Your task to perform on an android device: toggle improve location accuracy Image 0: 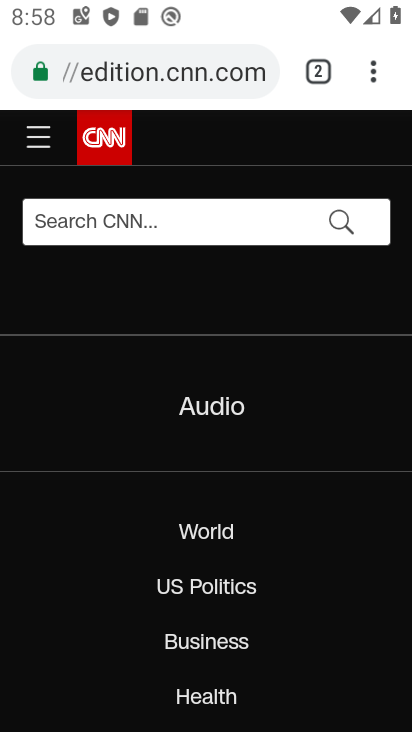
Step 0: press home button
Your task to perform on an android device: toggle improve location accuracy Image 1: 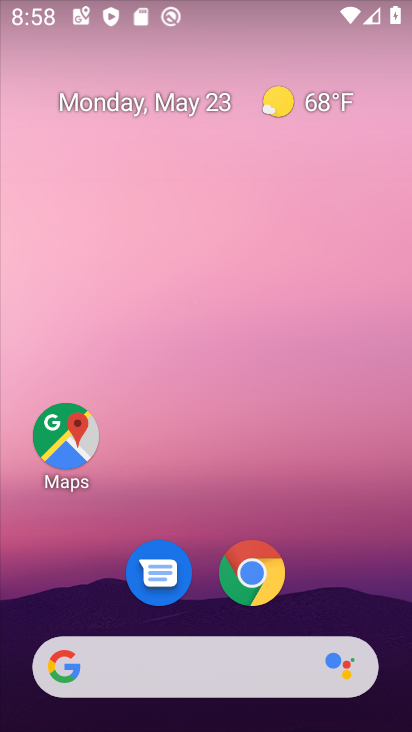
Step 1: drag from (339, 341) to (338, 111)
Your task to perform on an android device: toggle improve location accuracy Image 2: 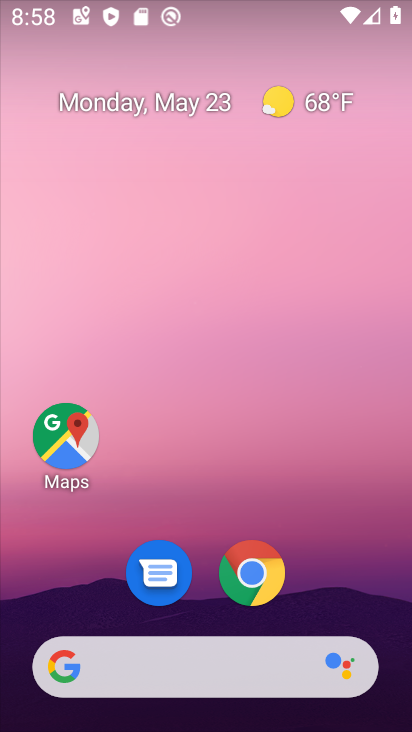
Step 2: drag from (380, 520) to (380, 135)
Your task to perform on an android device: toggle improve location accuracy Image 3: 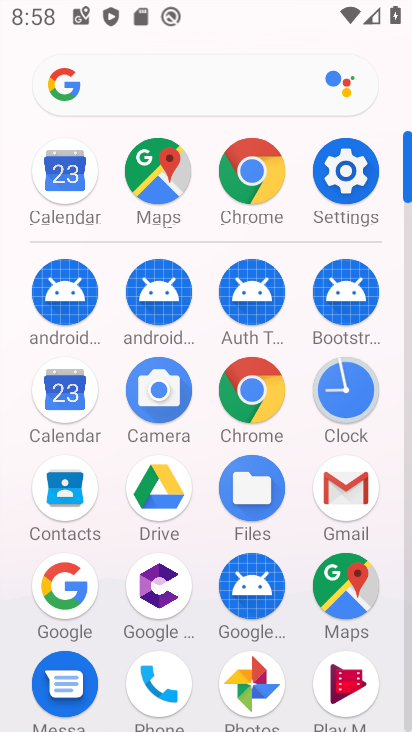
Step 3: click (351, 188)
Your task to perform on an android device: toggle improve location accuracy Image 4: 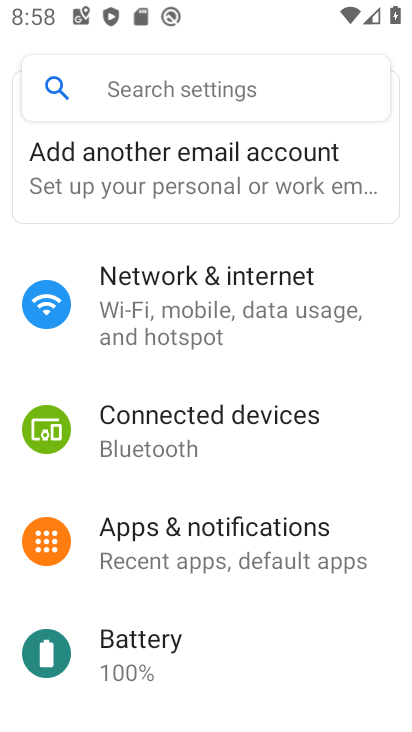
Step 4: drag from (251, 595) to (280, 233)
Your task to perform on an android device: toggle improve location accuracy Image 5: 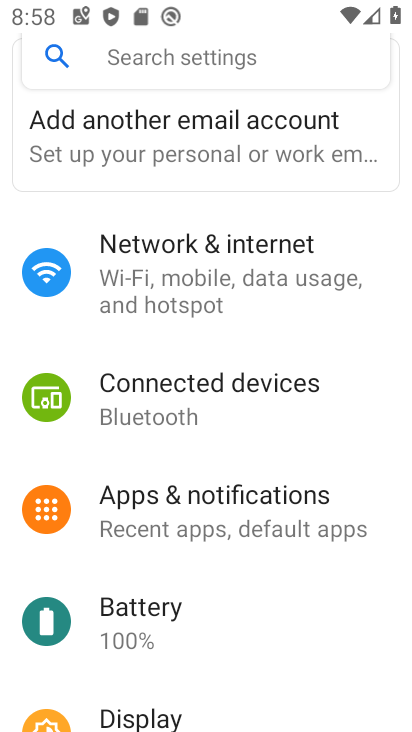
Step 5: drag from (313, 543) to (248, 159)
Your task to perform on an android device: toggle improve location accuracy Image 6: 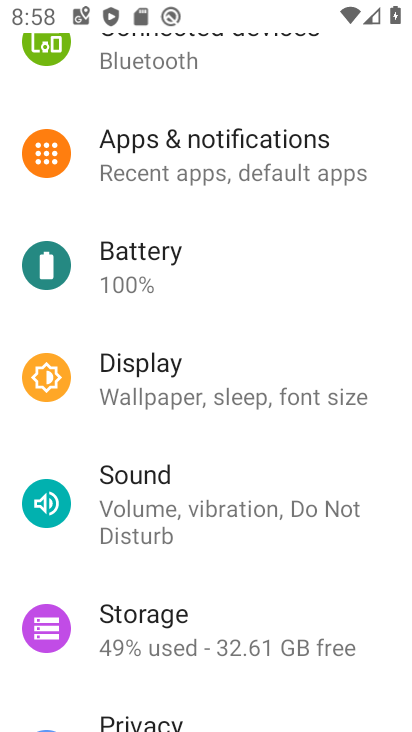
Step 6: drag from (260, 422) to (269, 134)
Your task to perform on an android device: toggle improve location accuracy Image 7: 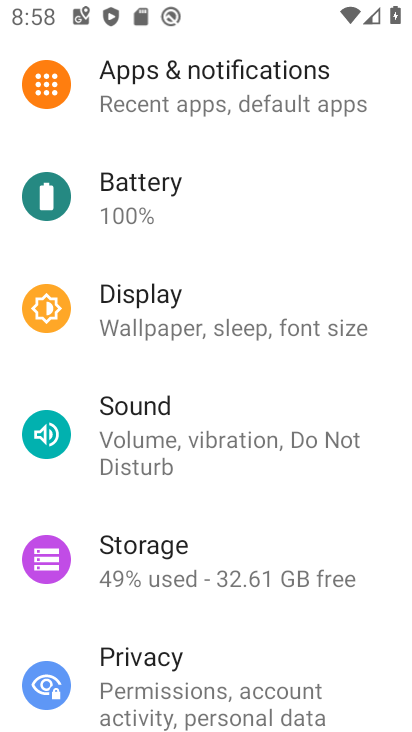
Step 7: drag from (263, 657) to (248, 385)
Your task to perform on an android device: toggle improve location accuracy Image 8: 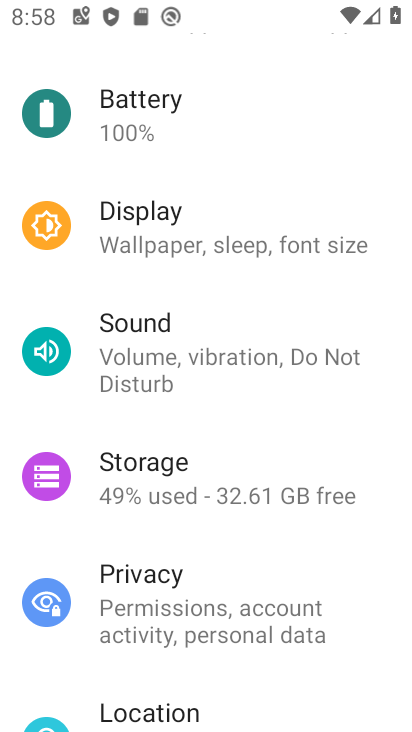
Step 8: click (260, 704)
Your task to perform on an android device: toggle improve location accuracy Image 9: 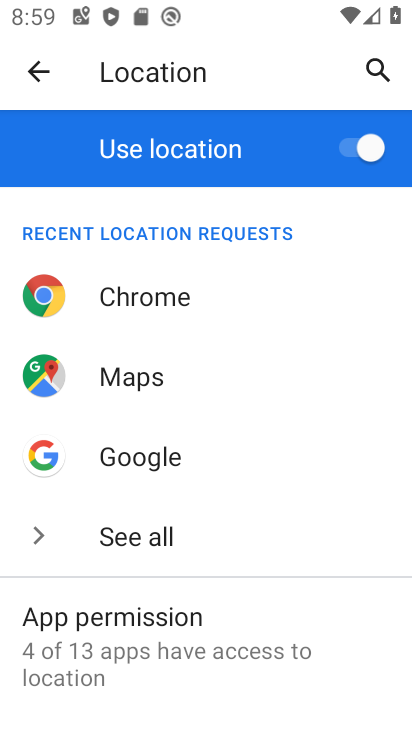
Step 9: drag from (261, 703) to (283, 153)
Your task to perform on an android device: toggle improve location accuracy Image 10: 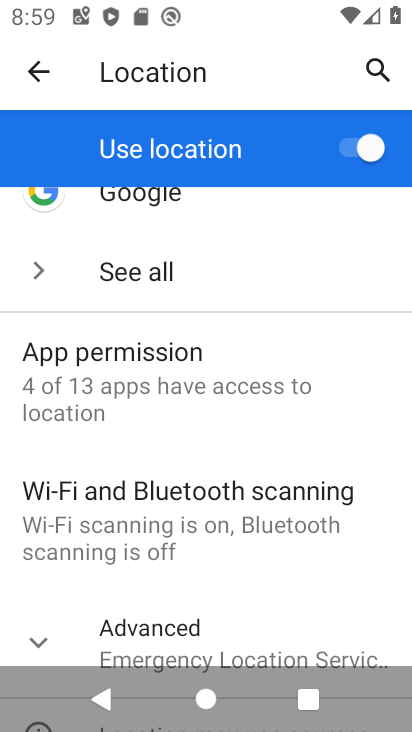
Step 10: drag from (257, 581) to (282, 349)
Your task to perform on an android device: toggle improve location accuracy Image 11: 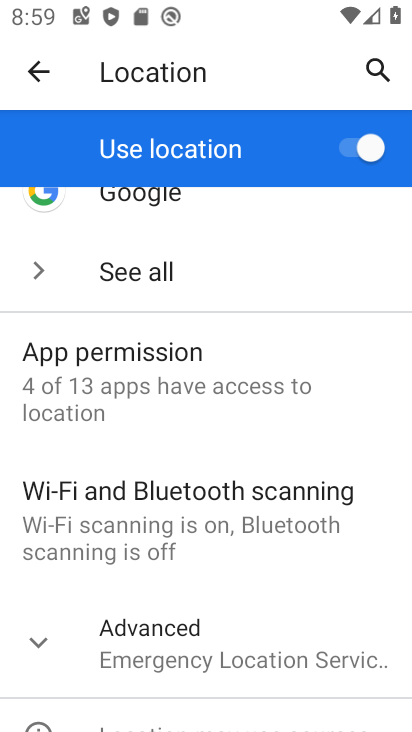
Step 11: click (231, 656)
Your task to perform on an android device: toggle improve location accuracy Image 12: 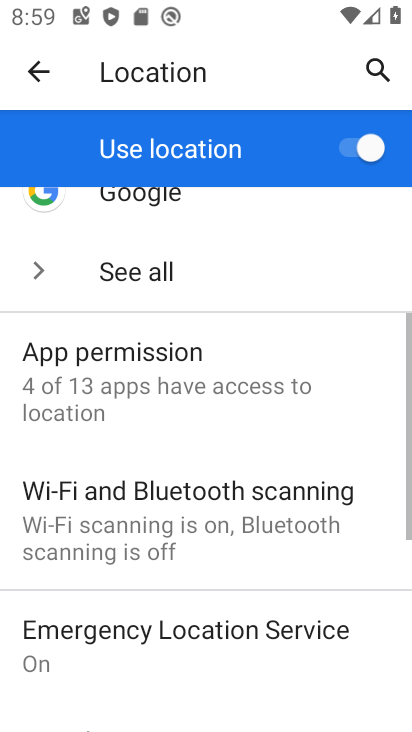
Step 12: drag from (231, 656) to (270, 372)
Your task to perform on an android device: toggle improve location accuracy Image 13: 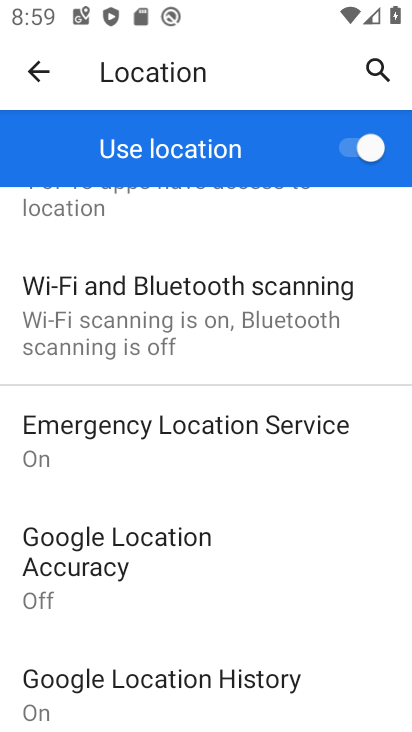
Step 13: drag from (176, 639) to (184, 502)
Your task to perform on an android device: toggle improve location accuracy Image 14: 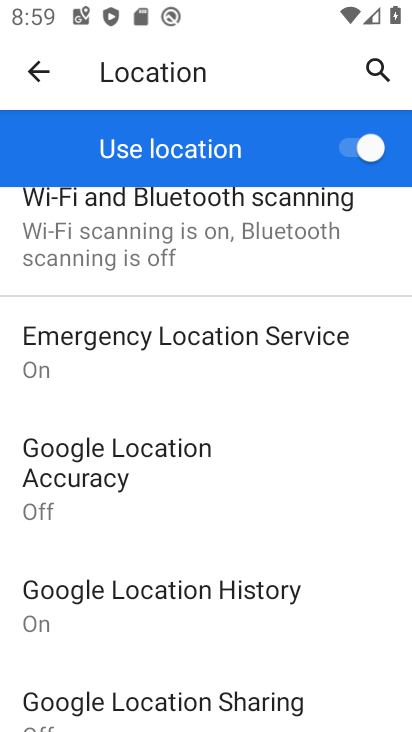
Step 14: click (169, 476)
Your task to perform on an android device: toggle improve location accuracy Image 15: 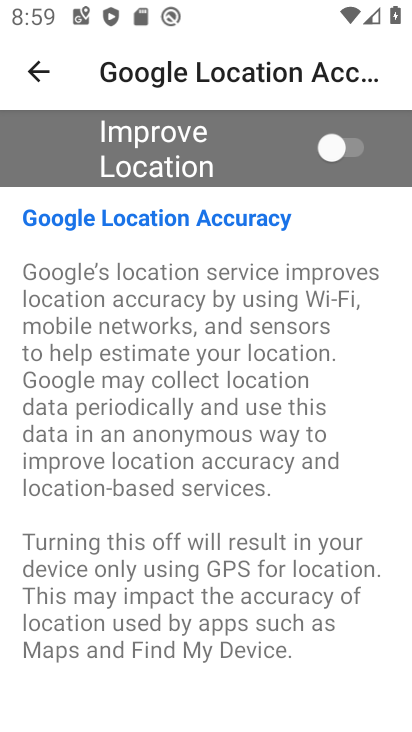
Step 15: click (358, 156)
Your task to perform on an android device: toggle improve location accuracy Image 16: 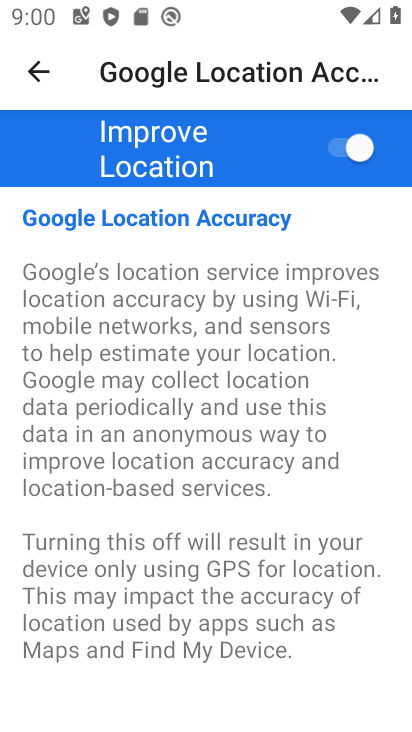
Step 16: task complete